Your task to perform on an android device: Open sound settings Image 0: 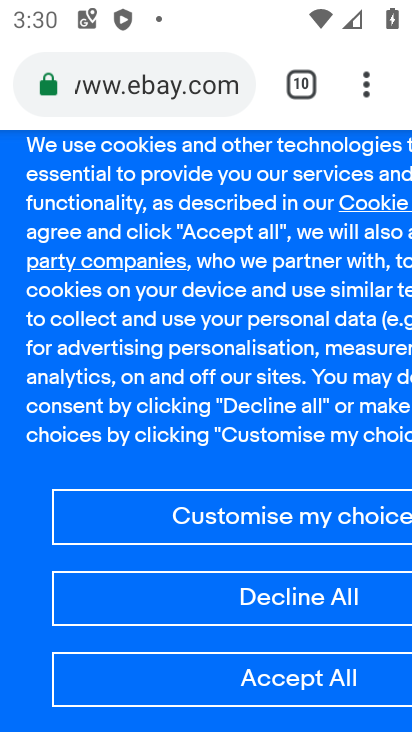
Step 0: press home button
Your task to perform on an android device: Open sound settings Image 1: 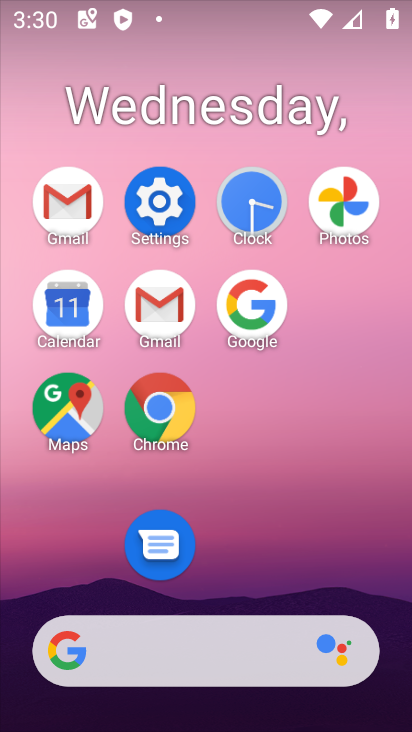
Step 1: click (159, 211)
Your task to perform on an android device: Open sound settings Image 2: 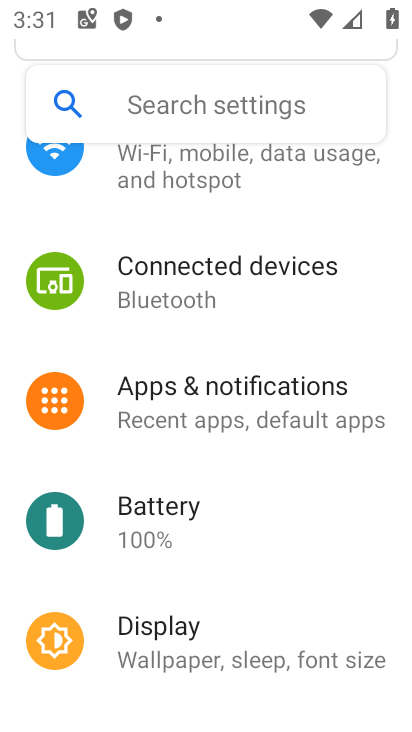
Step 2: drag from (277, 602) to (222, 154)
Your task to perform on an android device: Open sound settings Image 3: 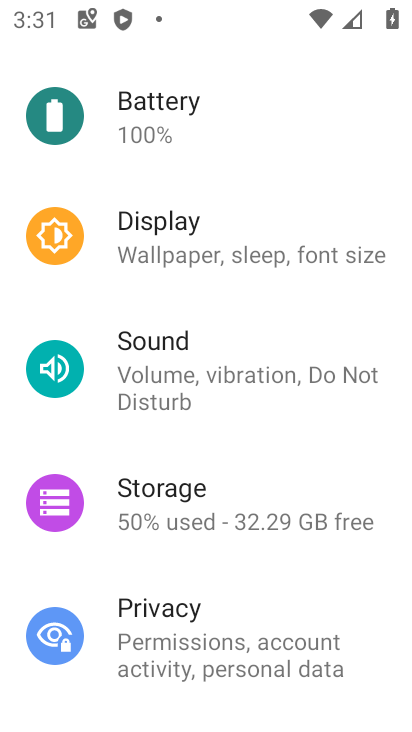
Step 3: click (238, 377)
Your task to perform on an android device: Open sound settings Image 4: 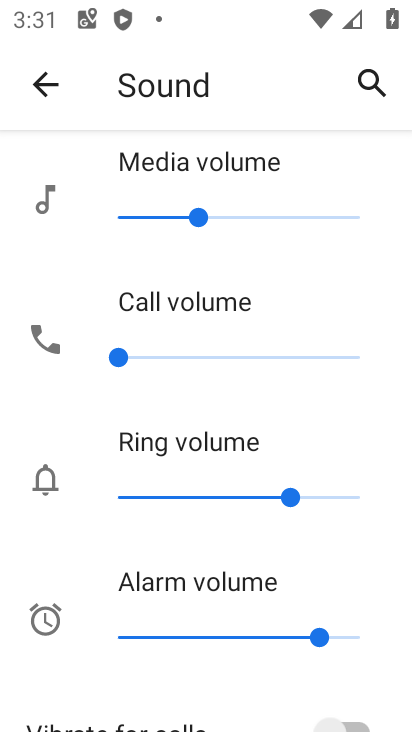
Step 4: task complete